Your task to perform on an android device: stop showing notifications on the lock screen Image 0: 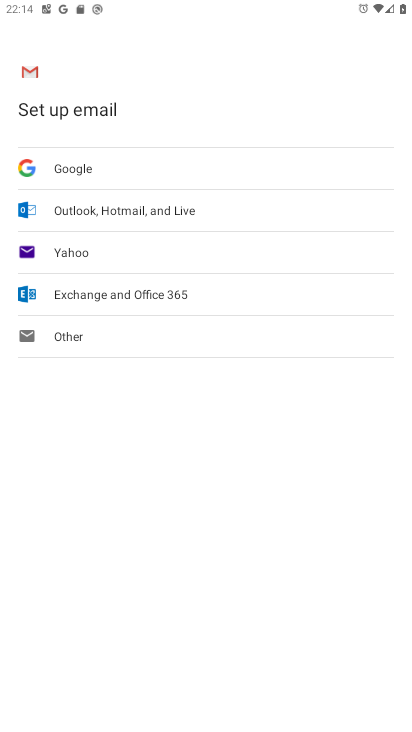
Step 0: press home button
Your task to perform on an android device: stop showing notifications on the lock screen Image 1: 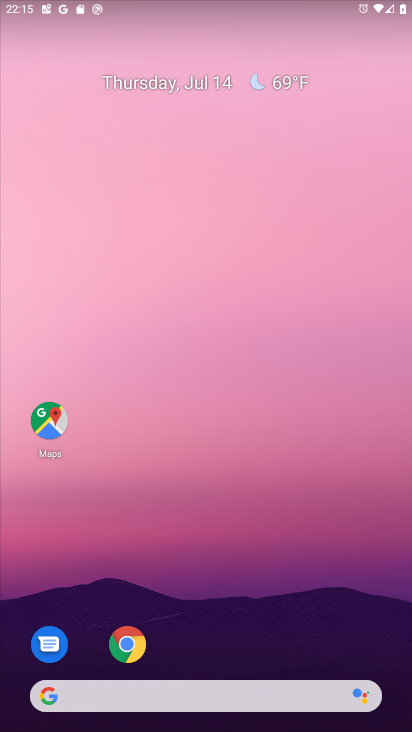
Step 1: drag from (205, 641) to (142, 68)
Your task to perform on an android device: stop showing notifications on the lock screen Image 2: 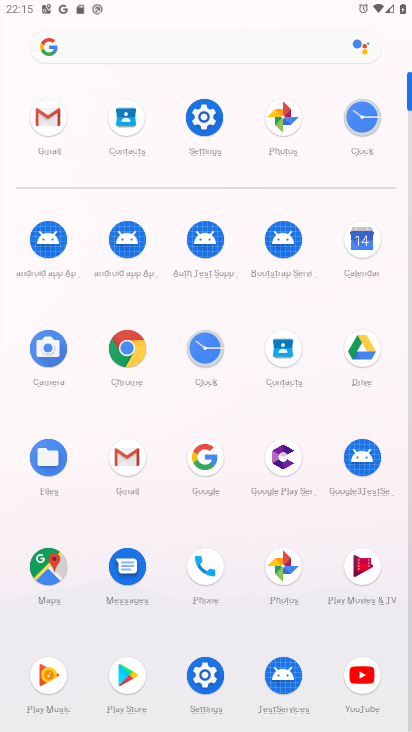
Step 2: click (212, 118)
Your task to perform on an android device: stop showing notifications on the lock screen Image 3: 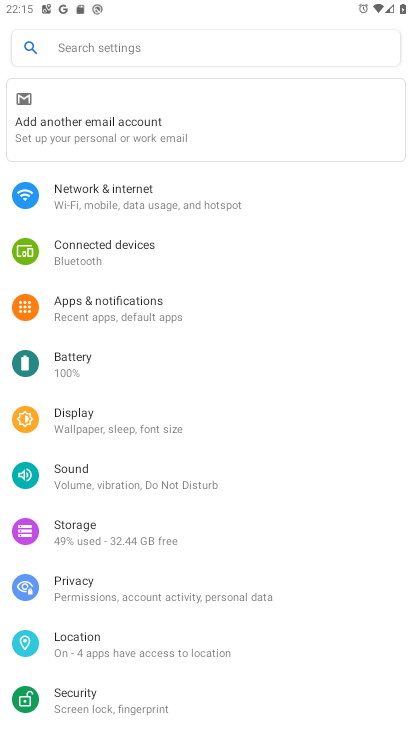
Step 3: click (121, 273)
Your task to perform on an android device: stop showing notifications on the lock screen Image 4: 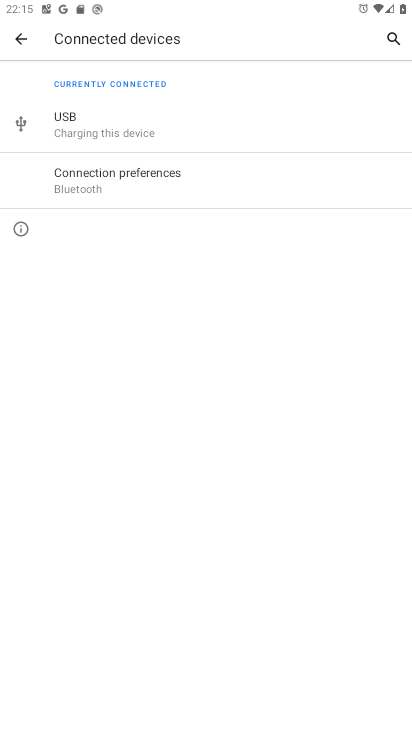
Step 4: click (31, 49)
Your task to perform on an android device: stop showing notifications on the lock screen Image 5: 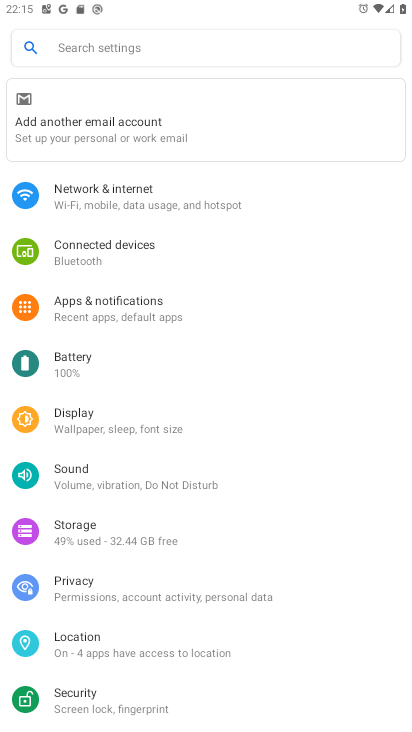
Step 5: click (106, 320)
Your task to perform on an android device: stop showing notifications on the lock screen Image 6: 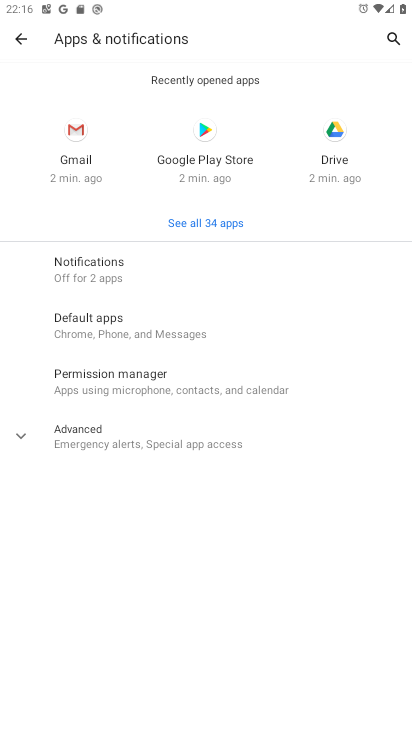
Step 6: click (93, 271)
Your task to perform on an android device: stop showing notifications on the lock screen Image 7: 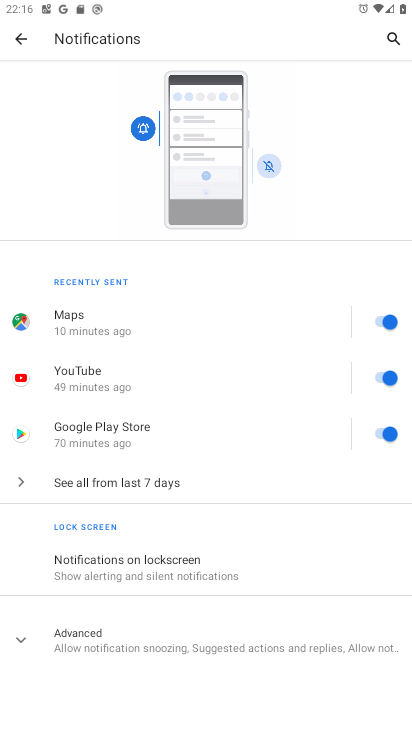
Step 7: click (162, 568)
Your task to perform on an android device: stop showing notifications on the lock screen Image 8: 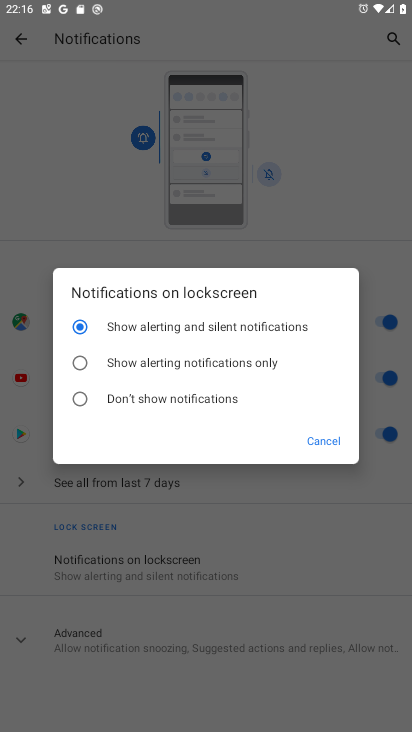
Step 8: click (181, 403)
Your task to perform on an android device: stop showing notifications on the lock screen Image 9: 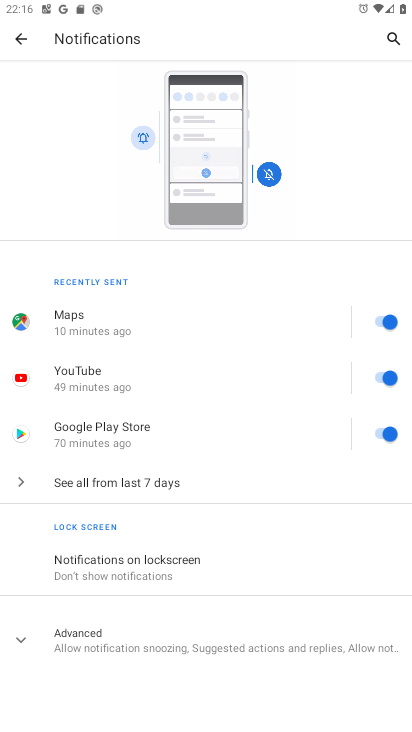
Step 9: task complete